Your task to perform on an android device: turn pop-ups off in chrome Image 0: 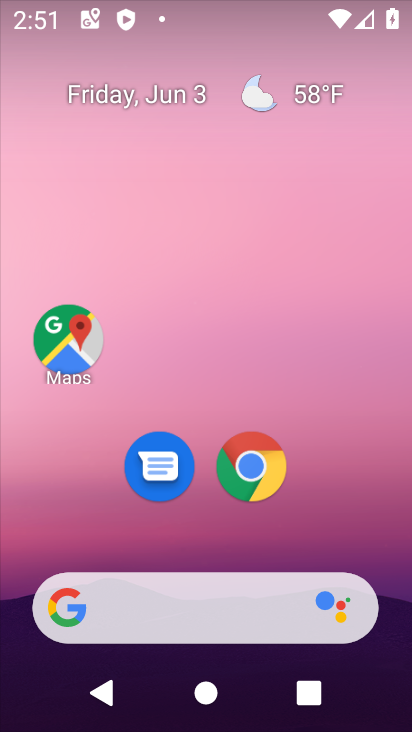
Step 0: click (256, 455)
Your task to perform on an android device: turn pop-ups off in chrome Image 1: 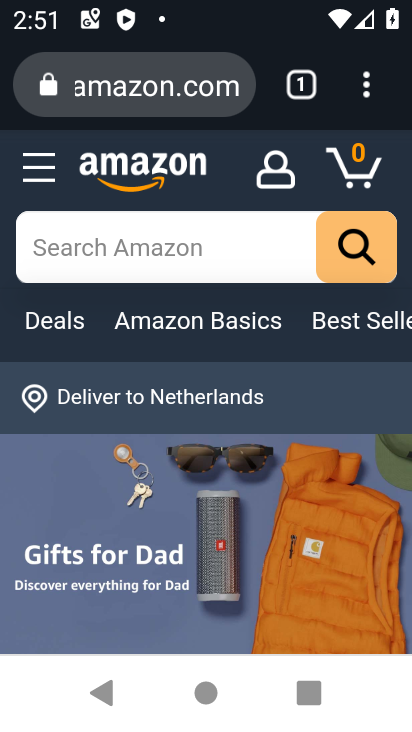
Step 1: click (389, 87)
Your task to perform on an android device: turn pop-ups off in chrome Image 2: 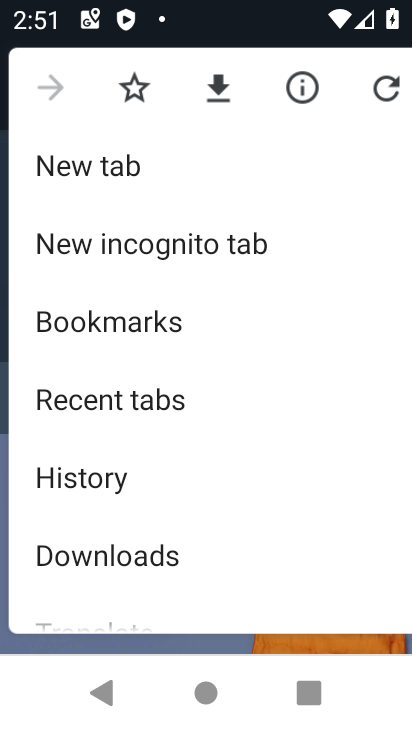
Step 2: drag from (271, 525) to (241, 141)
Your task to perform on an android device: turn pop-ups off in chrome Image 3: 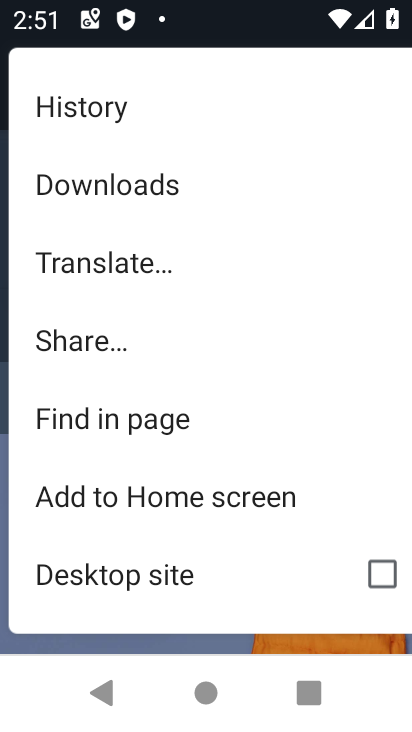
Step 3: drag from (227, 522) to (225, 187)
Your task to perform on an android device: turn pop-ups off in chrome Image 4: 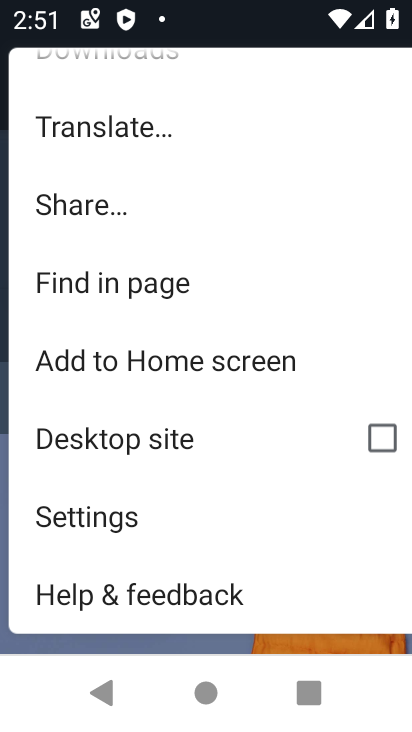
Step 4: click (139, 504)
Your task to perform on an android device: turn pop-ups off in chrome Image 5: 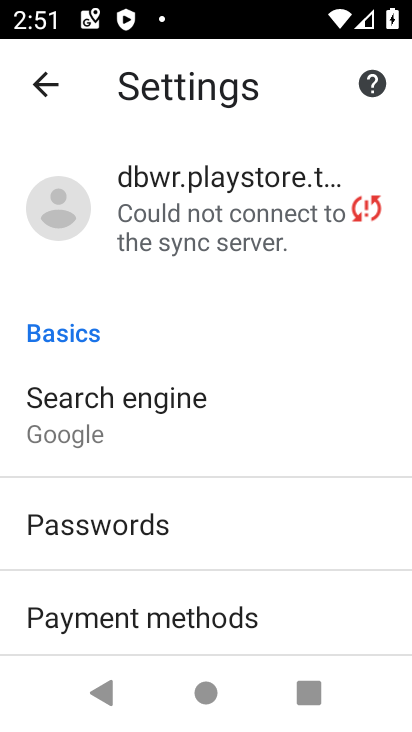
Step 5: drag from (310, 538) to (309, 201)
Your task to perform on an android device: turn pop-ups off in chrome Image 6: 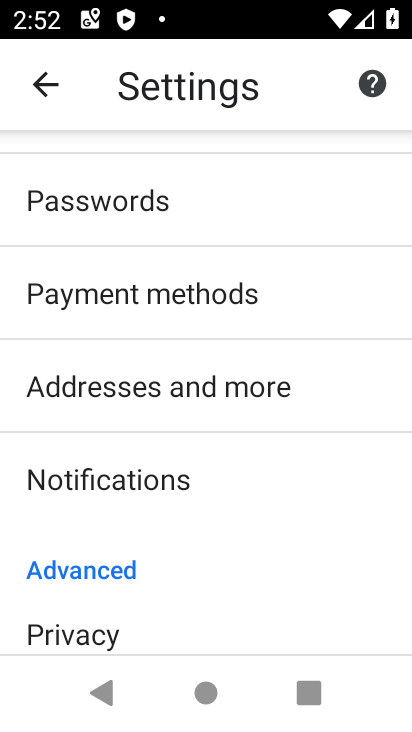
Step 6: drag from (214, 549) to (217, 221)
Your task to perform on an android device: turn pop-ups off in chrome Image 7: 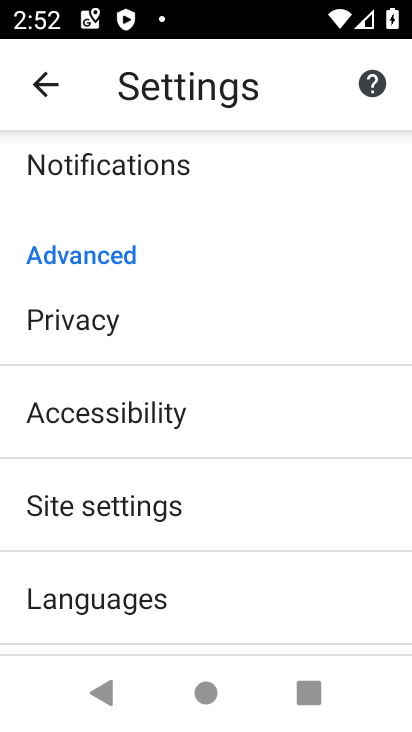
Step 7: click (169, 510)
Your task to perform on an android device: turn pop-ups off in chrome Image 8: 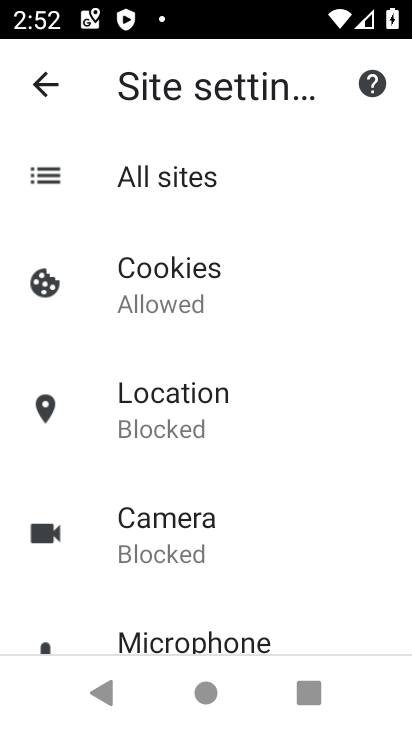
Step 8: drag from (255, 533) to (254, 251)
Your task to perform on an android device: turn pop-ups off in chrome Image 9: 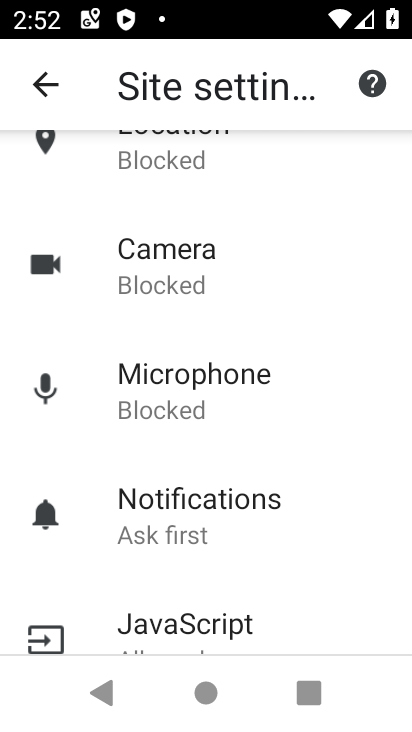
Step 9: drag from (249, 404) to (225, 234)
Your task to perform on an android device: turn pop-ups off in chrome Image 10: 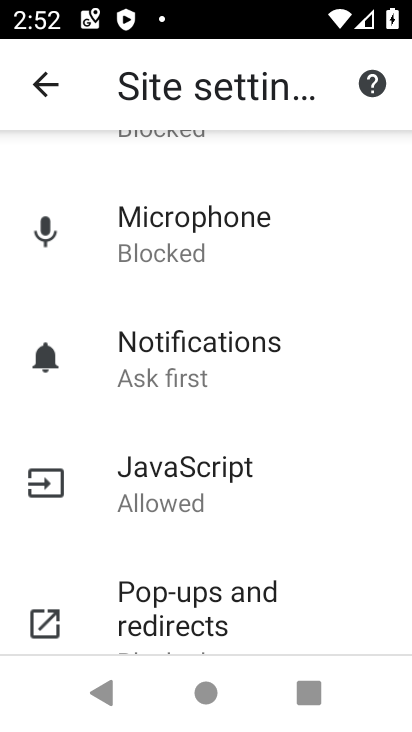
Step 10: click (144, 607)
Your task to perform on an android device: turn pop-ups off in chrome Image 11: 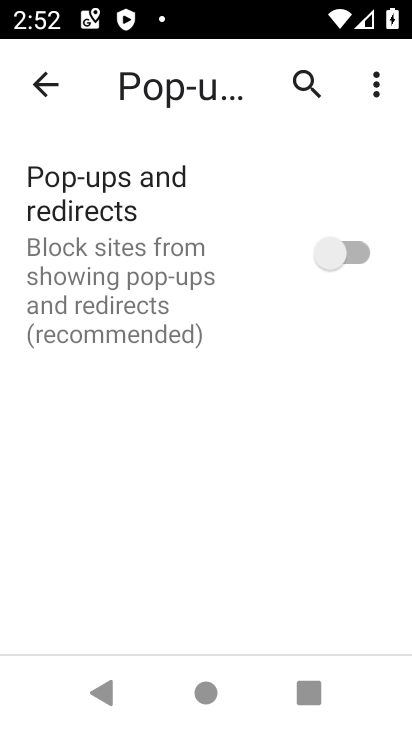
Step 11: task complete